Your task to perform on an android device: check android version Image 0: 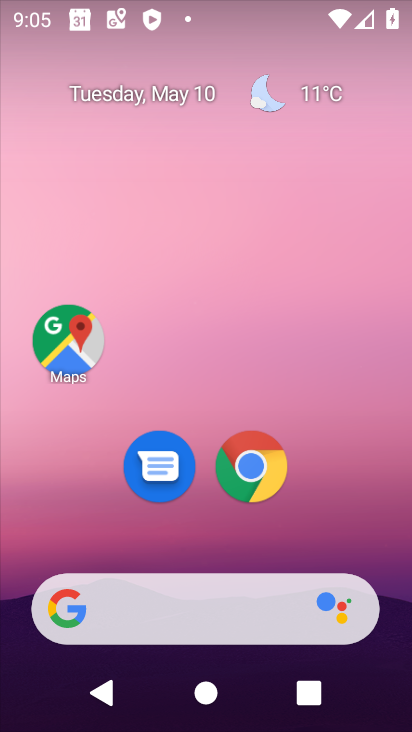
Step 0: drag from (361, 528) to (315, 86)
Your task to perform on an android device: check android version Image 1: 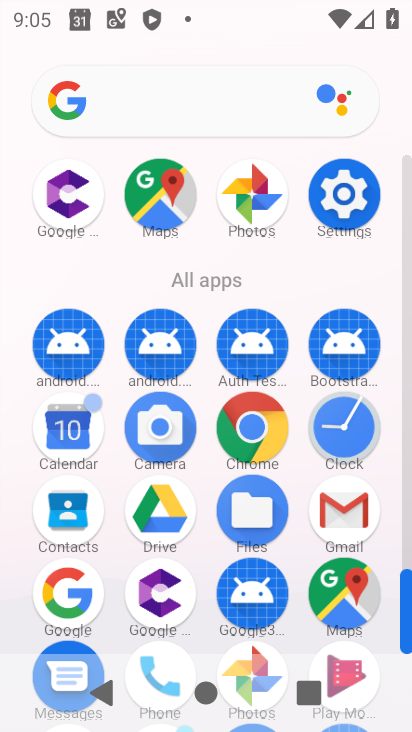
Step 1: click (339, 183)
Your task to perform on an android device: check android version Image 2: 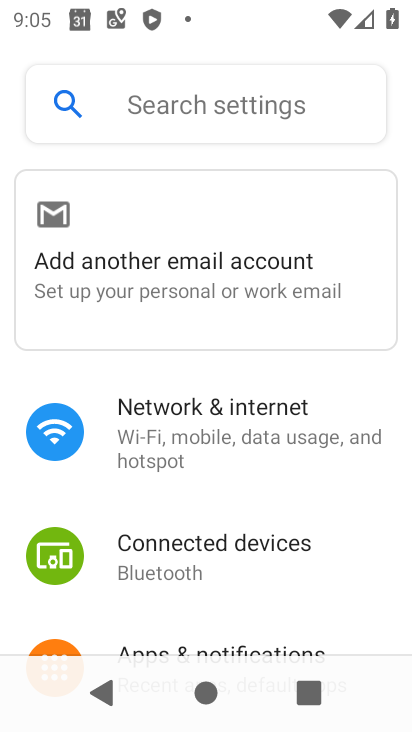
Step 2: drag from (206, 497) to (49, 11)
Your task to perform on an android device: check android version Image 3: 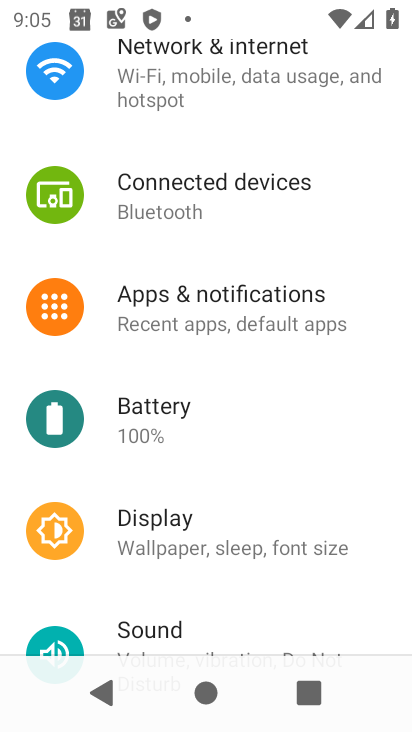
Step 3: drag from (189, 523) to (115, 67)
Your task to perform on an android device: check android version Image 4: 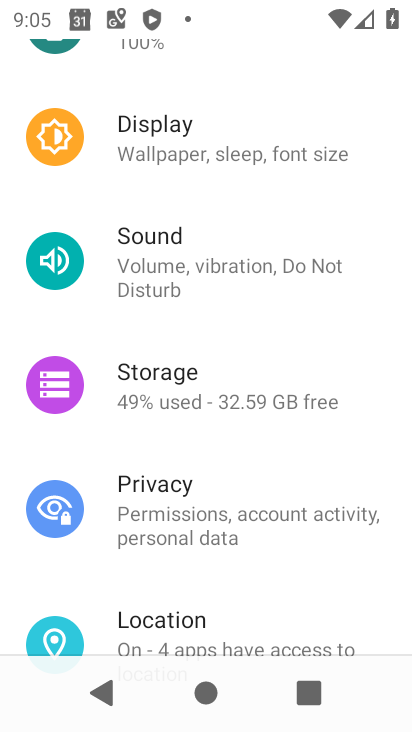
Step 4: drag from (181, 577) to (162, 153)
Your task to perform on an android device: check android version Image 5: 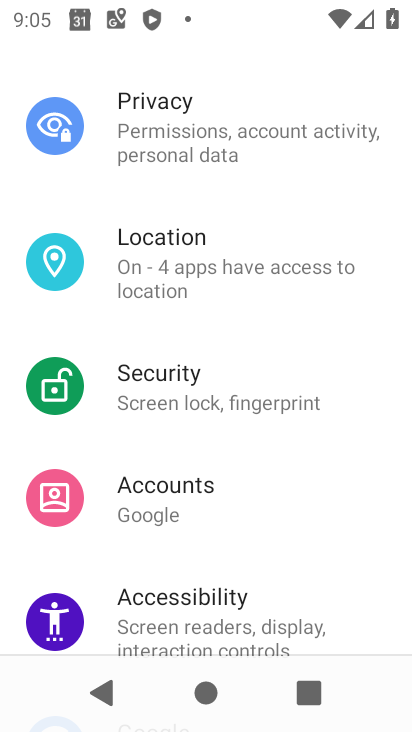
Step 5: drag from (213, 468) to (265, 131)
Your task to perform on an android device: check android version Image 6: 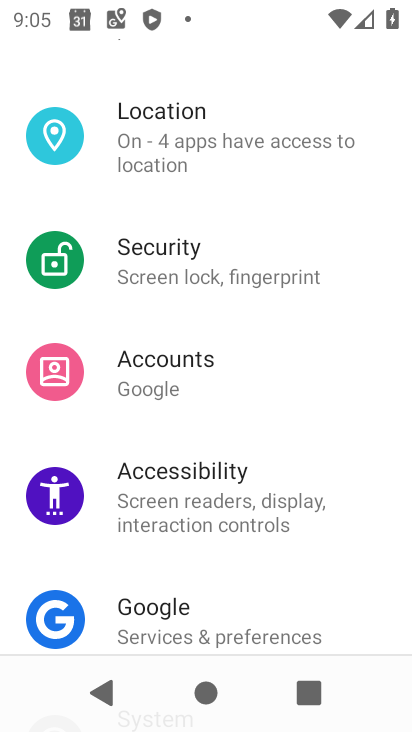
Step 6: drag from (239, 613) to (173, 102)
Your task to perform on an android device: check android version Image 7: 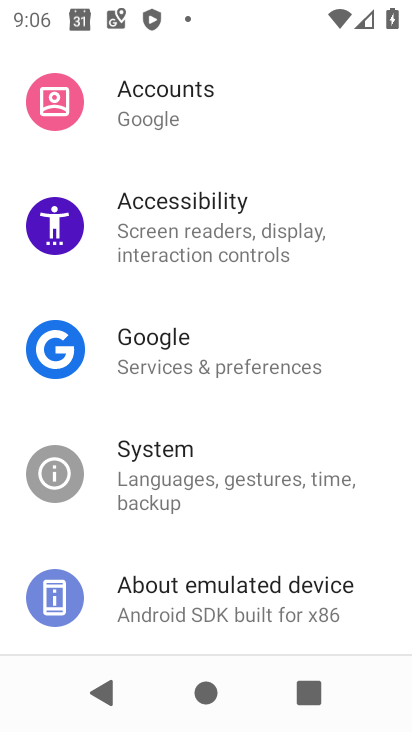
Step 7: click (197, 611)
Your task to perform on an android device: check android version Image 8: 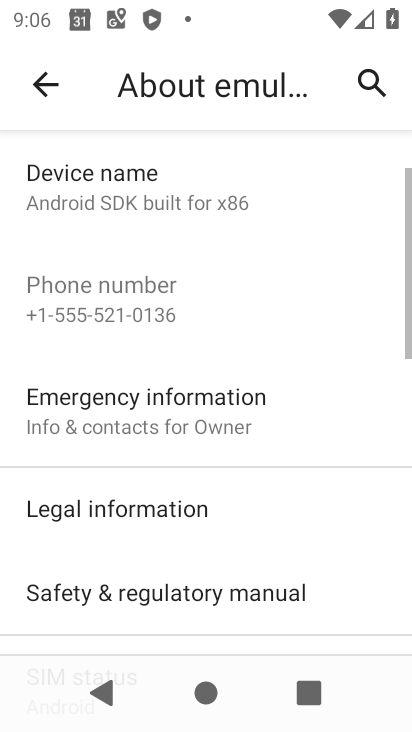
Step 8: drag from (244, 266) to (252, 512)
Your task to perform on an android device: check android version Image 9: 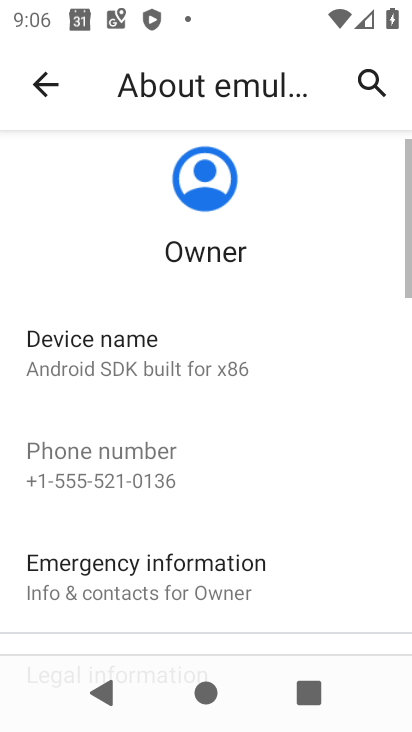
Step 9: drag from (196, 569) to (174, 242)
Your task to perform on an android device: check android version Image 10: 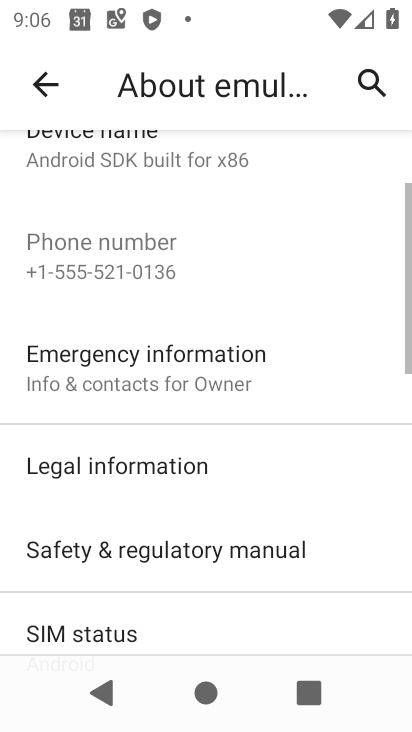
Step 10: drag from (185, 586) to (236, 288)
Your task to perform on an android device: check android version Image 11: 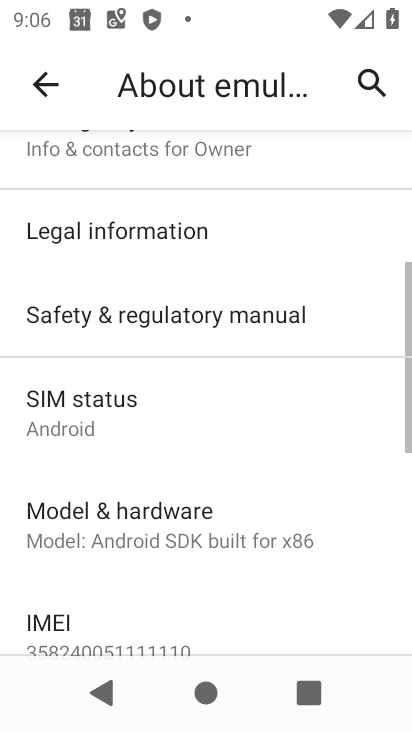
Step 11: drag from (227, 596) to (255, 237)
Your task to perform on an android device: check android version Image 12: 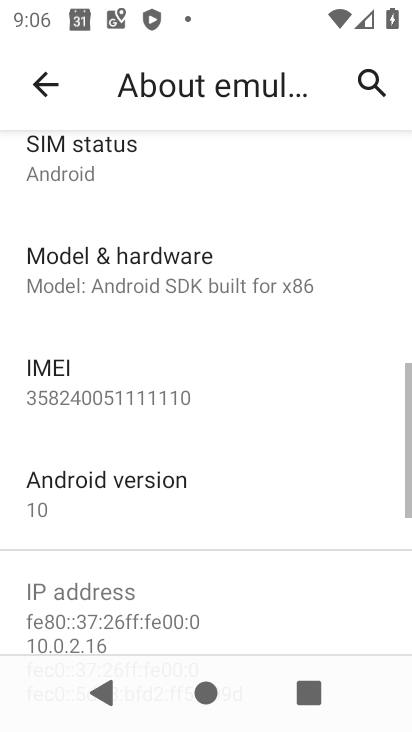
Step 12: click (122, 492)
Your task to perform on an android device: check android version Image 13: 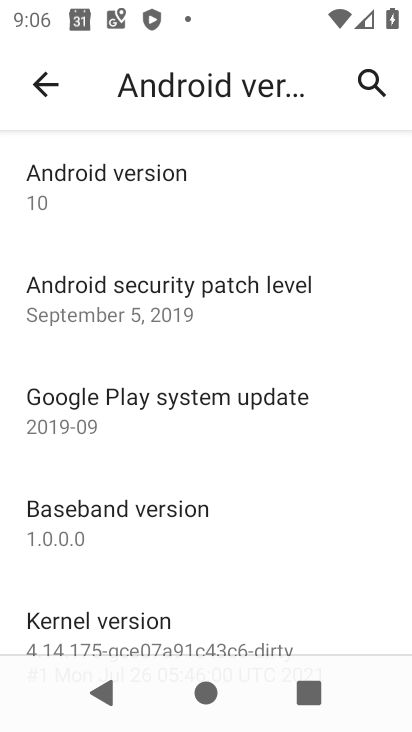
Step 13: task complete